Your task to perform on an android device: toggle priority inbox in the gmail app Image 0: 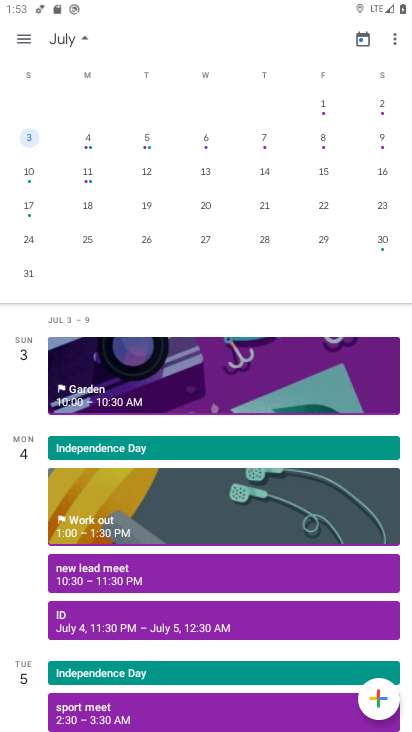
Step 0: press home button
Your task to perform on an android device: toggle priority inbox in the gmail app Image 1: 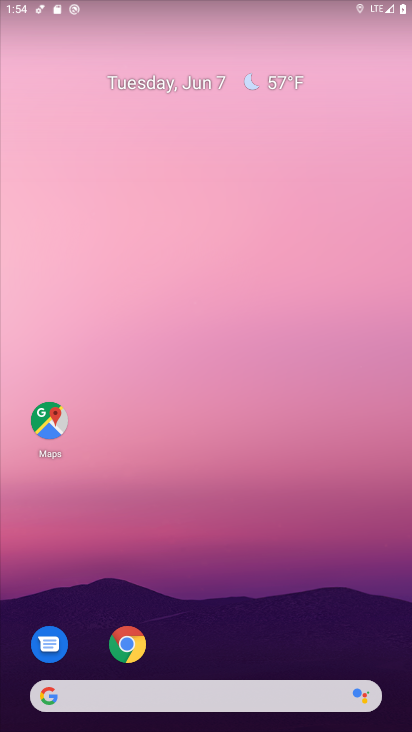
Step 1: drag from (225, 648) to (203, 0)
Your task to perform on an android device: toggle priority inbox in the gmail app Image 2: 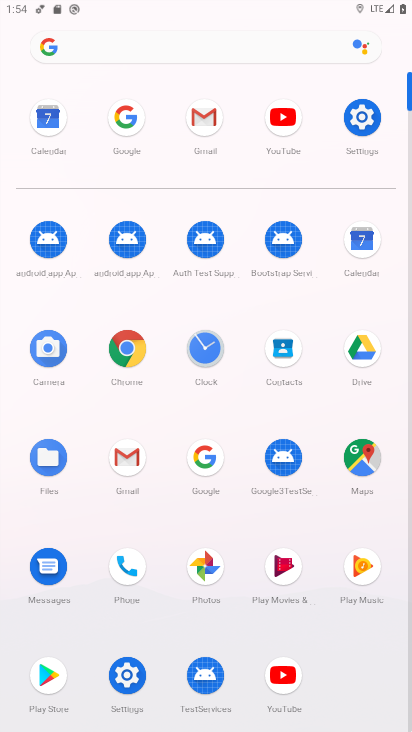
Step 2: click (135, 453)
Your task to perform on an android device: toggle priority inbox in the gmail app Image 3: 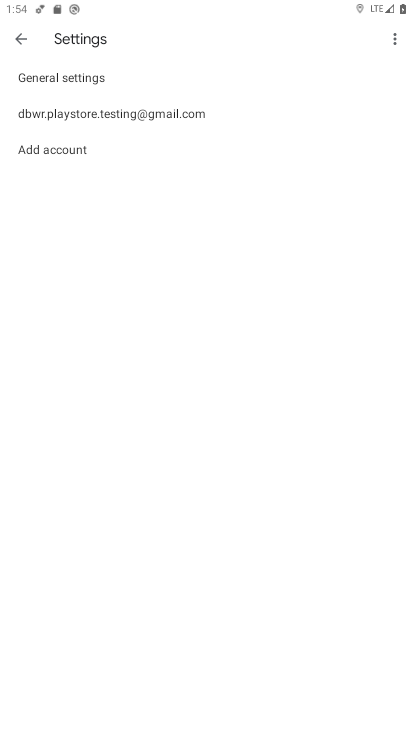
Step 3: click (28, 108)
Your task to perform on an android device: toggle priority inbox in the gmail app Image 4: 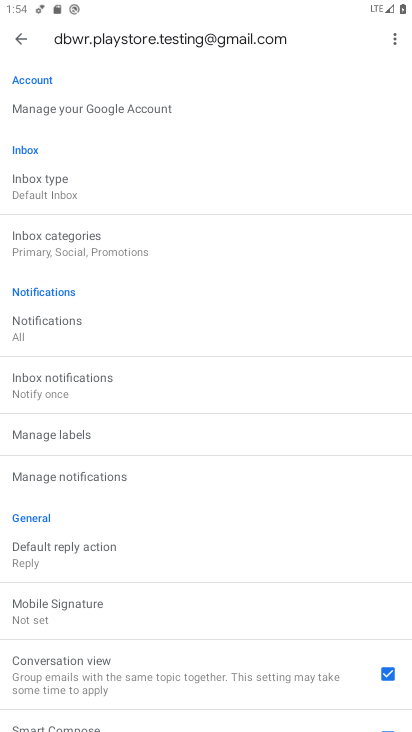
Step 4: click (74, 202)
Your task to perform on an android device: toggle priority inbox in the gmail app Image 5: 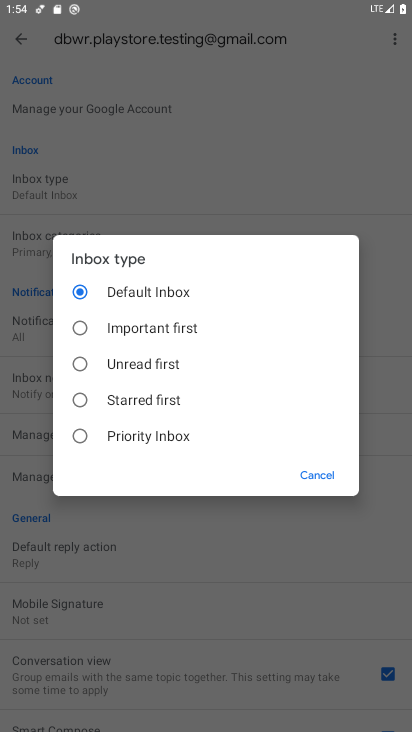
Step 5: click (142, 436)
Your task to perform on an android device: toggle priority inbox in the gmail app Image 6: 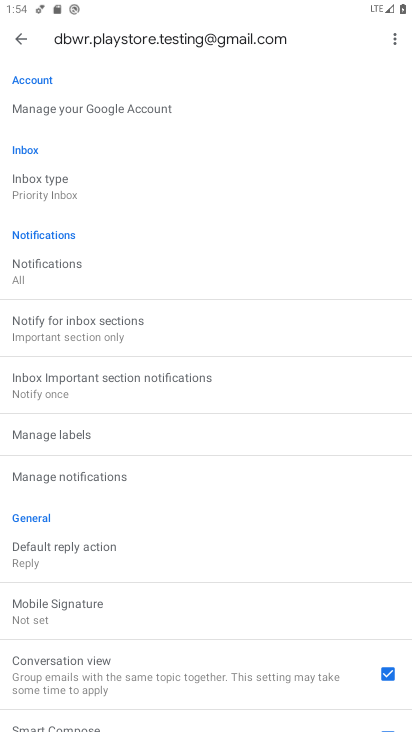
Step 6: task complete